Your task to perform on an android device: Go to Google maps Image 0: 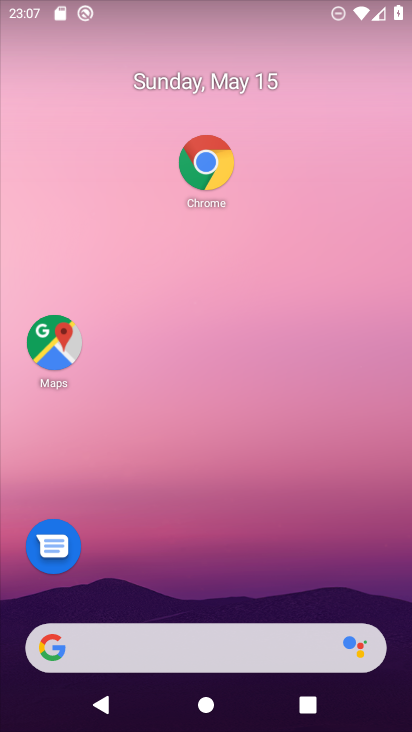
Step 0: click (47, 337)
Your task to perform on an android device: Go to Google maps Image 1: 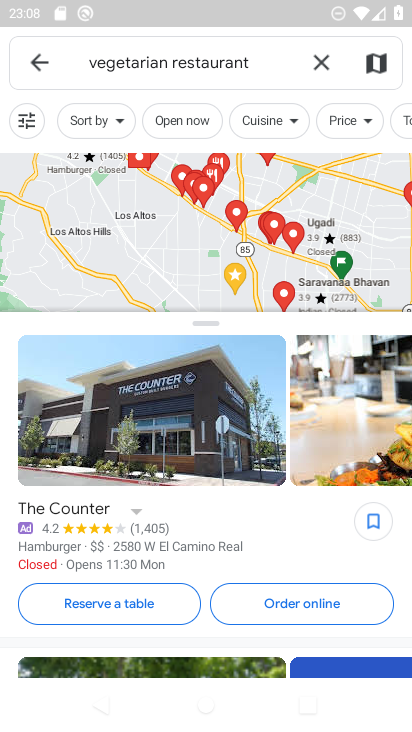
Step 1: task complete